Your task to perform on an android device: check the backup settings in the google photos Image 0: 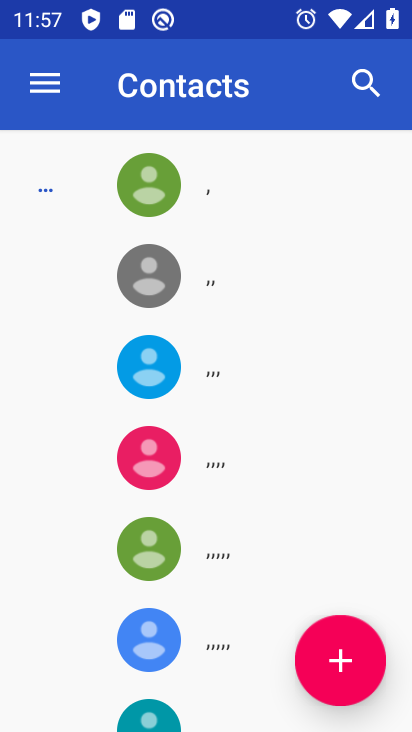
Step 0: press home button
Your task to perform on an android device: check the backup settings in the google photos Image 1: 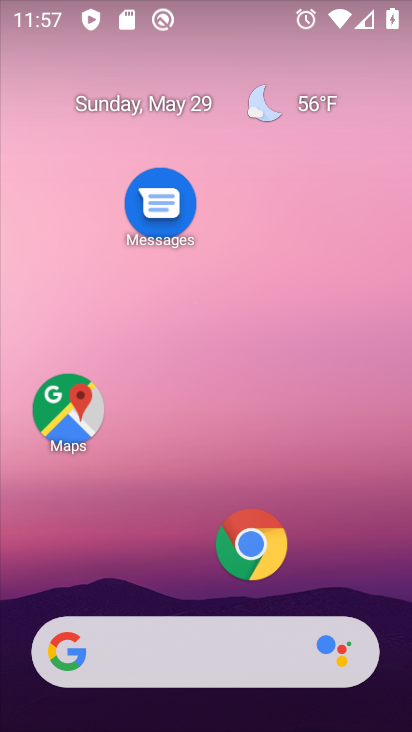
Step 1: drag from (190, 579) to (262, 40)
Your task to perform on an android device: check the backup settings in the google photos Image 2: 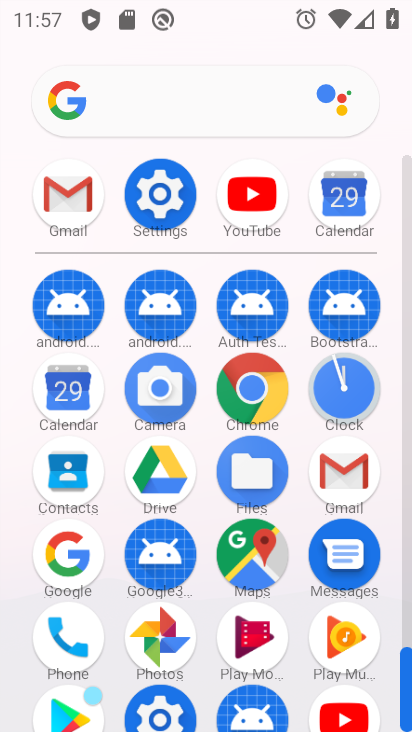
Step 2: click (162, 631)
Your task to perform on an android device: check the backup settings in the google photos Image 3: 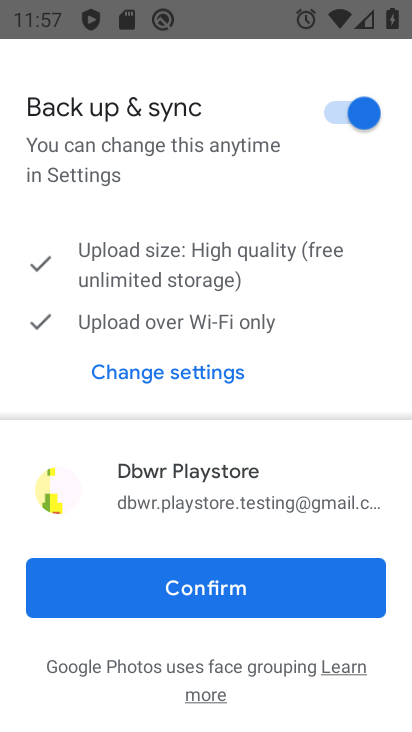
Step 3: click (227, 594)
Your task to perform on an android device: check the backup settings in the google photos Image 4: 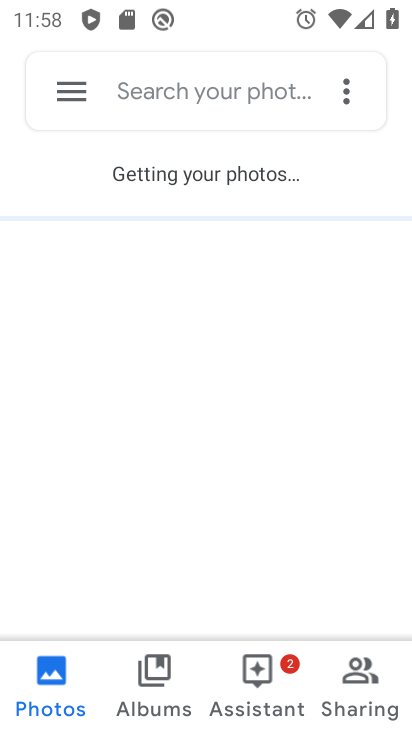
Step 4: click (65, 88)
Your task to perform on an android device: check the backup settings in the google photos Image 5: 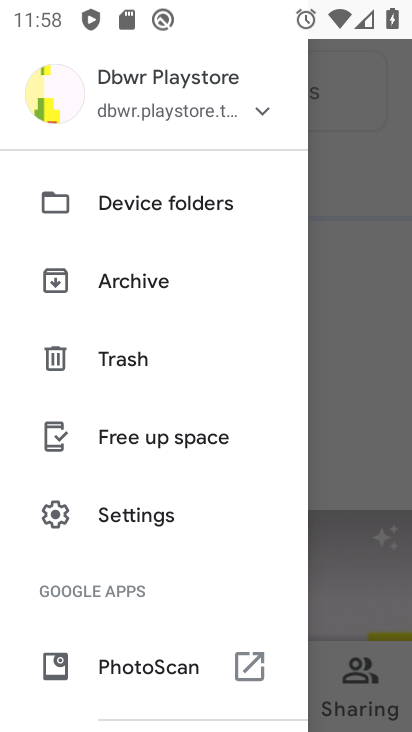
Step 5: click (144, 517)
Your task to perform on an android device: check the backup settings in the google photos Image 6: 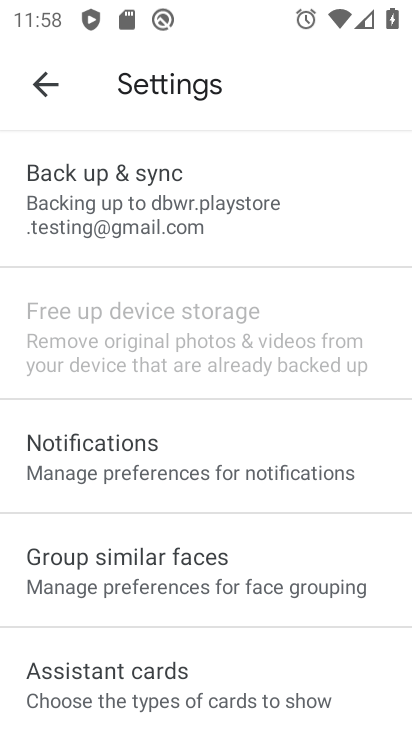
Step 6: click (168, 218)
Your task to perform on an android device: check the backup settings in the google photos Image 7: 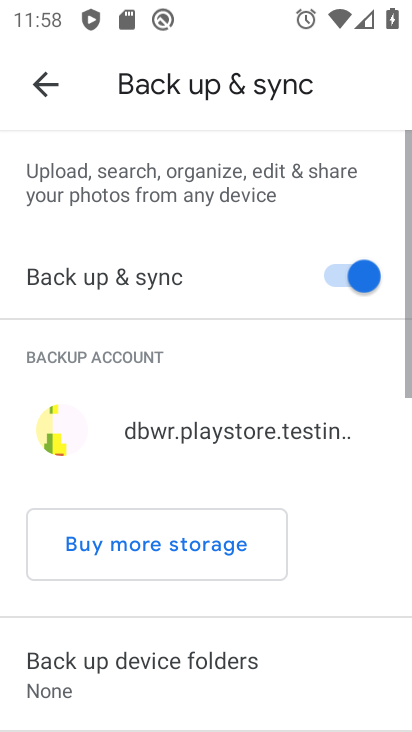
Step 7: task complete